Your task to perform on an android device: When is my next appointment? Image 0: 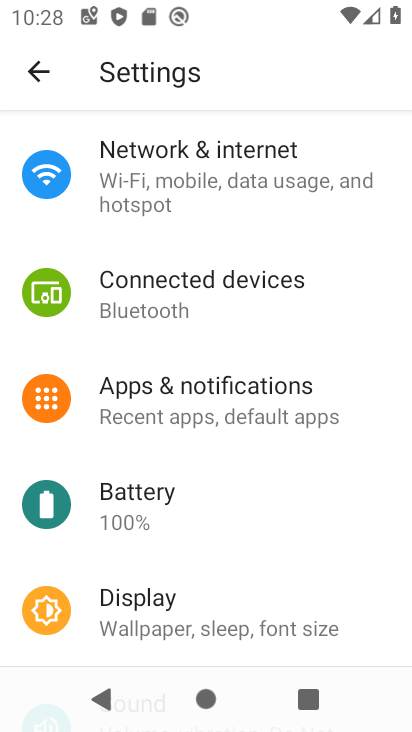
Step 0: press home button
Your task to perform on an android device: When is my next appointment? Image 1: 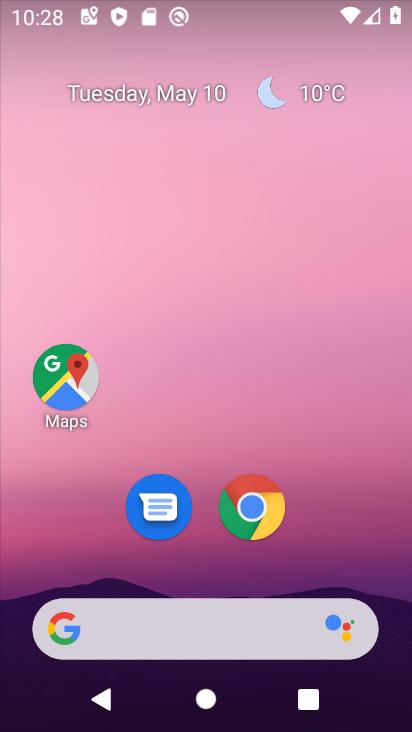
Step 1: drag from (314, 527) to (322, 62)
Your task to perform on an android device: When is my next appointment? Image 2: 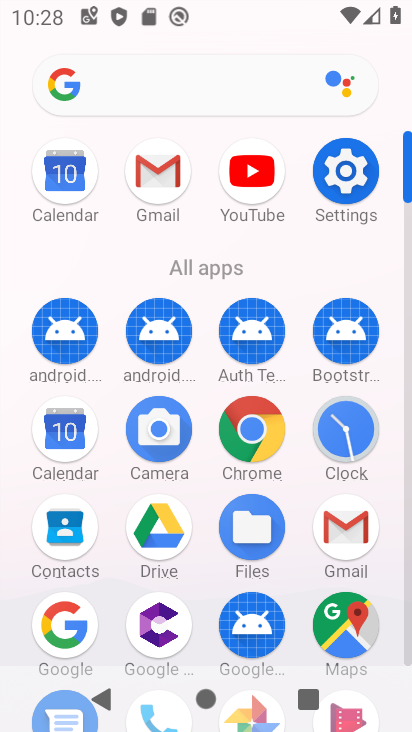
Step 2: click (73, 449)
Your task to perform on an android device: When is my next appointment? Image 3: 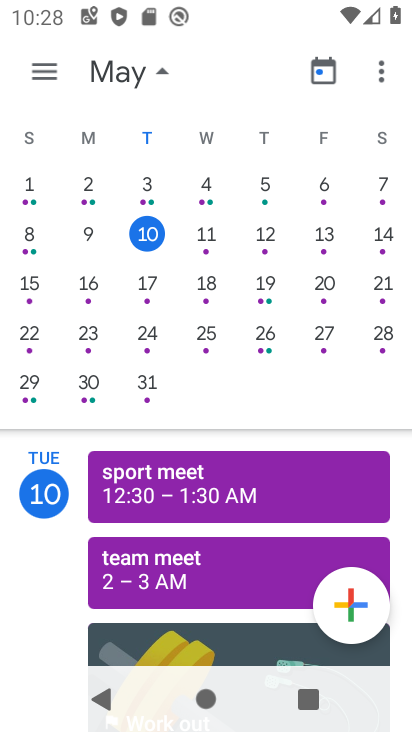
Step 3: click (202, 241)
Your task to perform on an android device: When is my next appointment? Image 4: 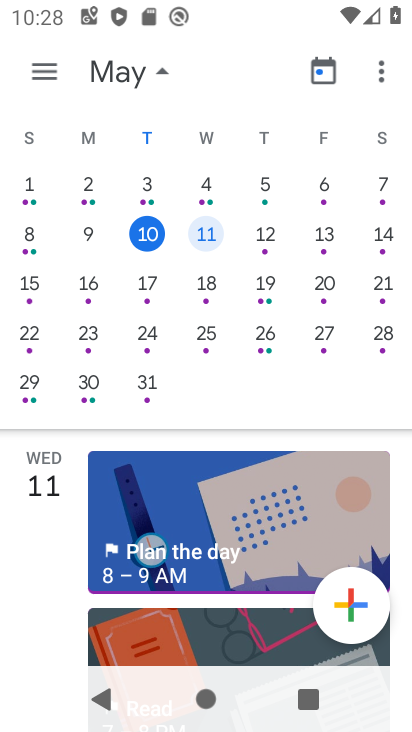
Step 4: task complete